Your task to perform on an android device: turn off location Image 0: 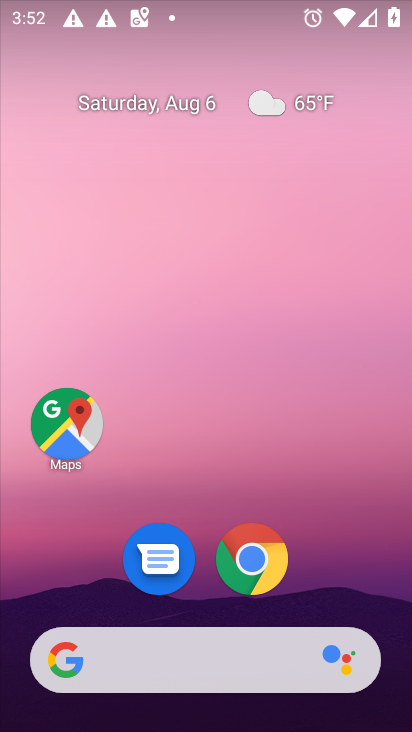
Step 0: drag from (316, 492) to (328, 40)
Your task to perform on an android device: turn off location Image 1: 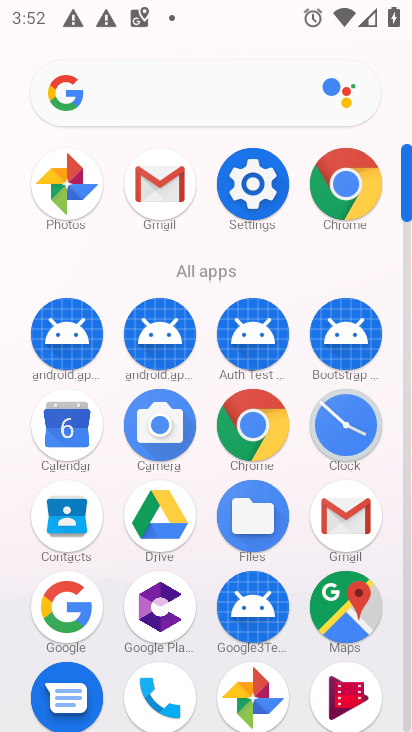
Step 1: click (263, 192)
Your task to perform on an android device: turn off location Image 2: 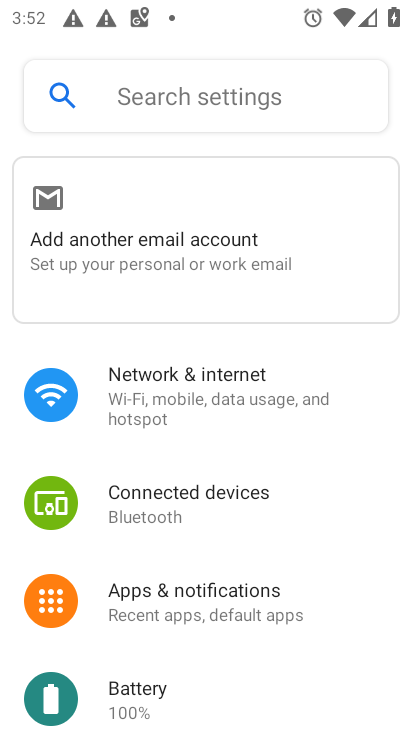
Step 2: drag from (213, 569) to (233, 0)
Your task to perform on an android device: turn off location Image 3: 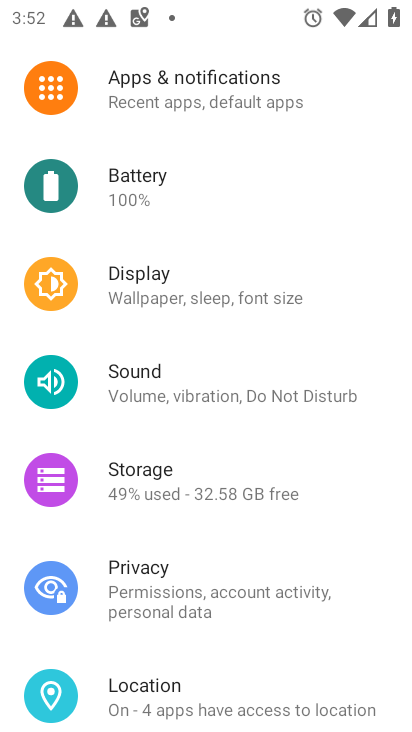
Step 3: click (184, 684)
Your task to perform on an android device: turn off location Image 4: 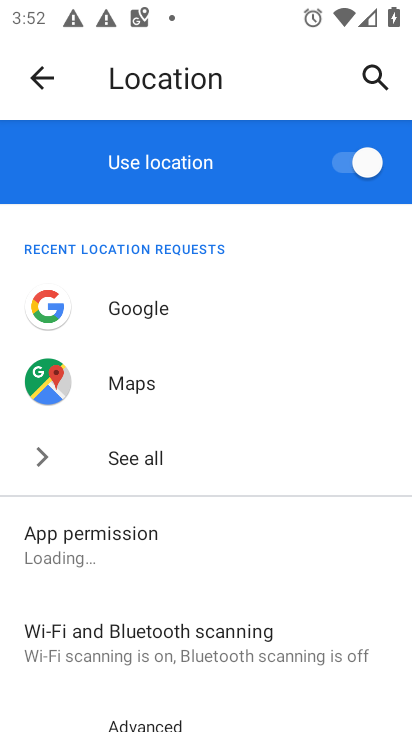
Step 4: click (351, 157)
Your task to perform on an android device: turn off location Image 5: 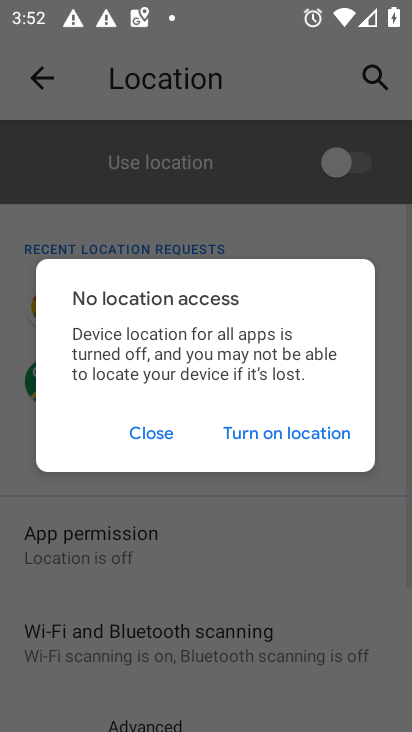
Step 5: task complete